Your task to perform on an android device: Show the shopping cart on costco.com. Add "asus zenbook" to the cart on costco.com, then select checkout. Image 0: 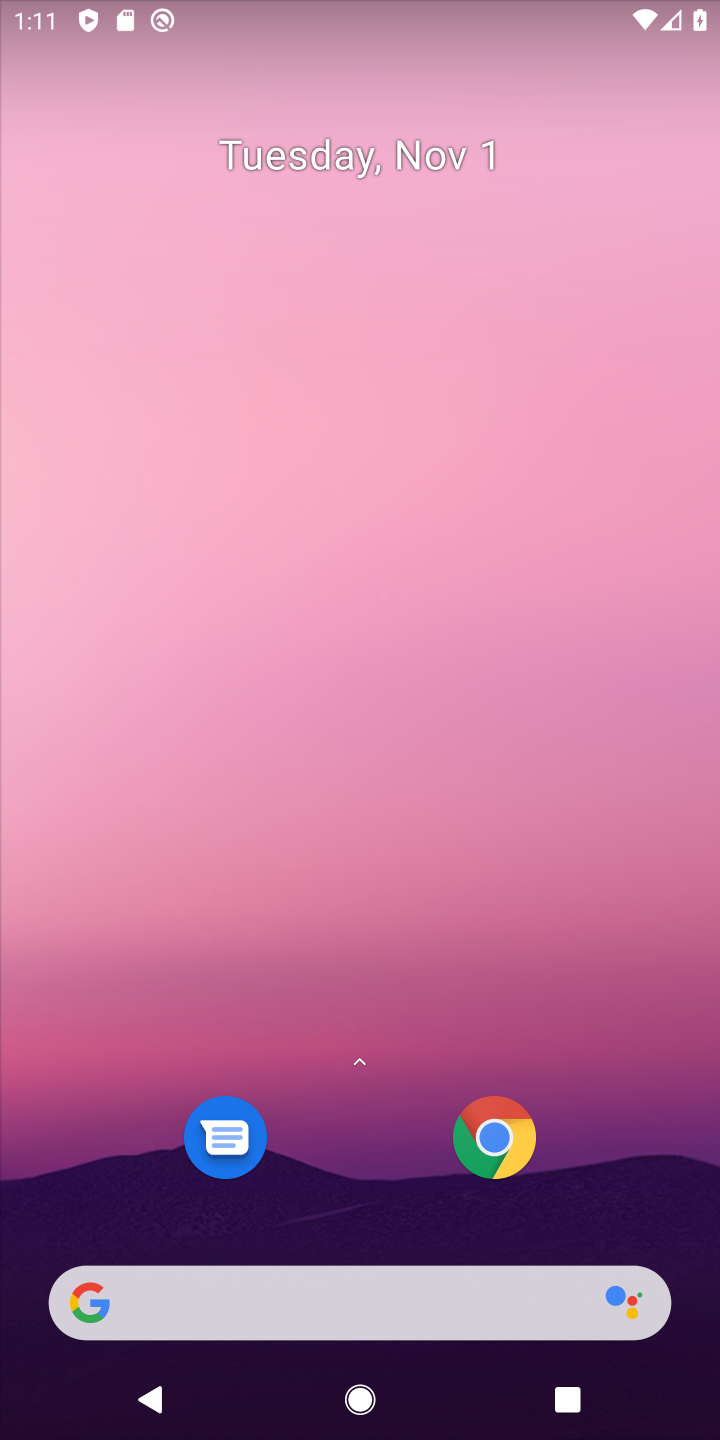
Step 0: click (367, 1296)
Your task to perform on an android device: Show the shopping cart on costco.com. Add "asus zenbook" to the cart on costco.com, then select checkout. Image 1: 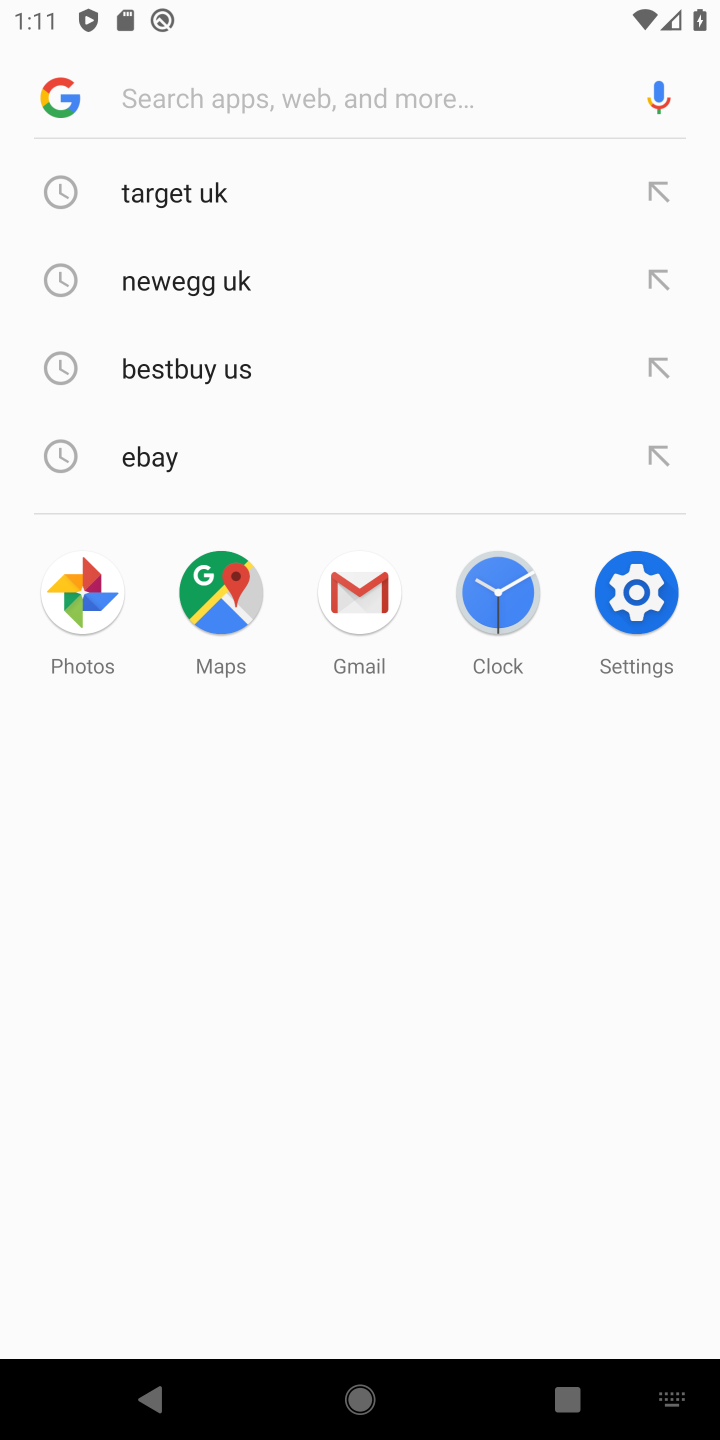
Step 1: type "costco"
Your task to perform on an android device: Show the shopping cart on costco.com. Add "asus zenbook" to the cart on costco.com, then select checkout. Image 2: 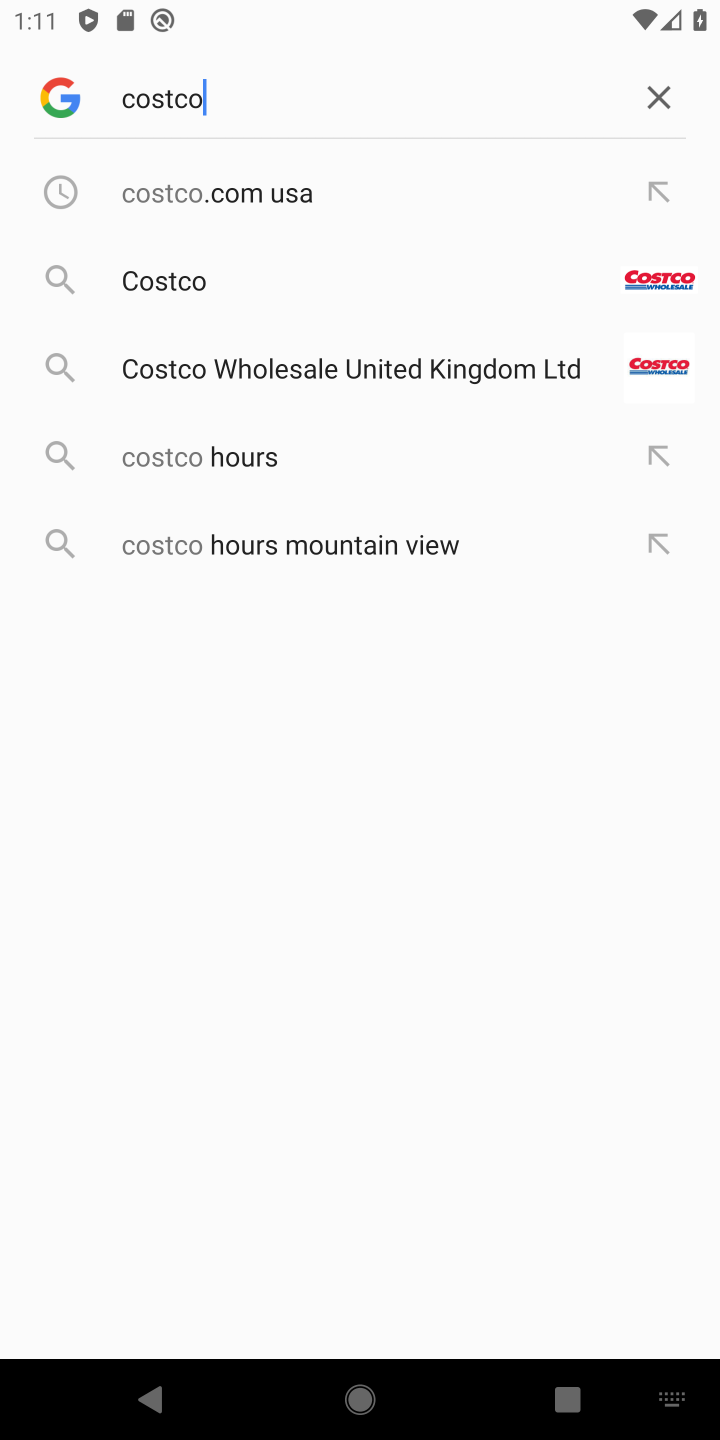
Step 2: click (385, 193)
Your task to perform on an android device: Show the shopping cart on costco.com. Add "asus zenbook" to the cart on costco.com, then select checkout. Image 3: 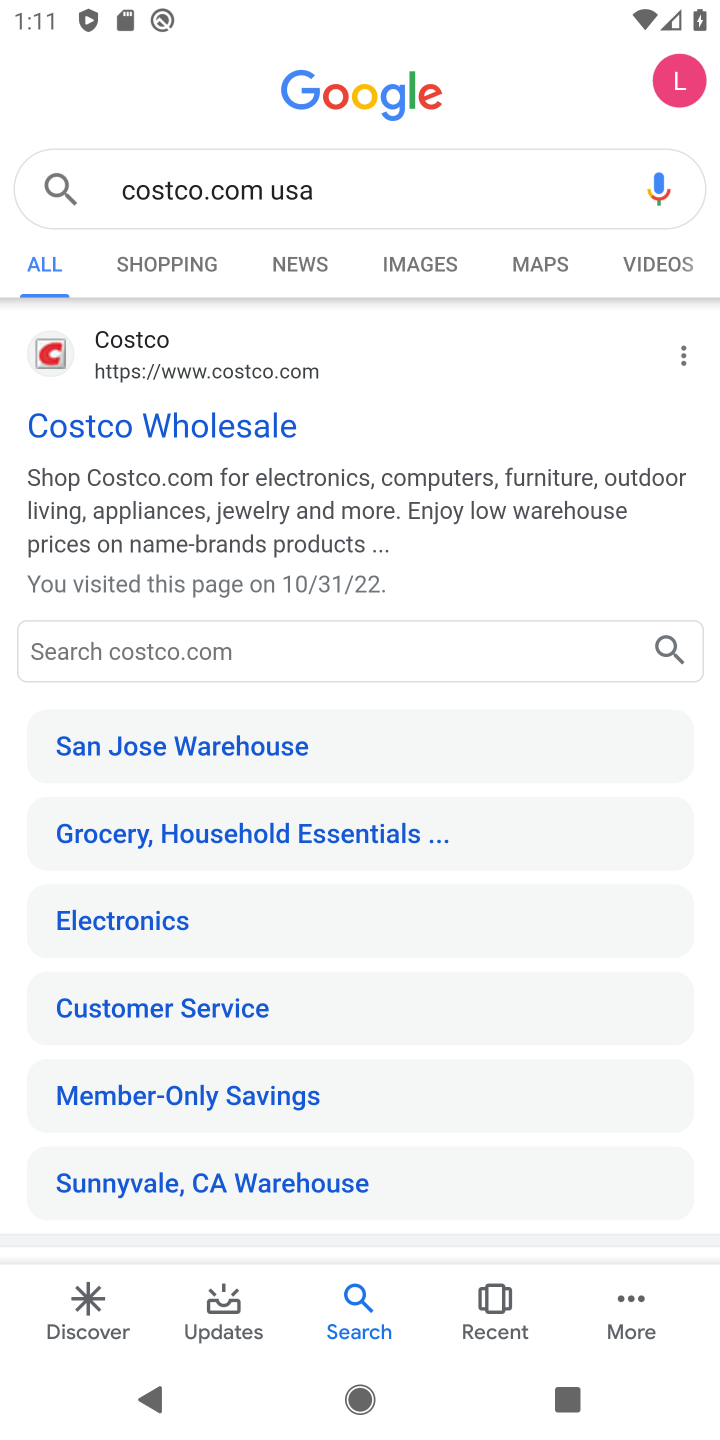
Step 3: click (152, 440)
Your task to perform on an android device: Show the shopping cart on costco.com. Add "asus zenbook" to the cart on costco.com, then select checkout. Image 4: 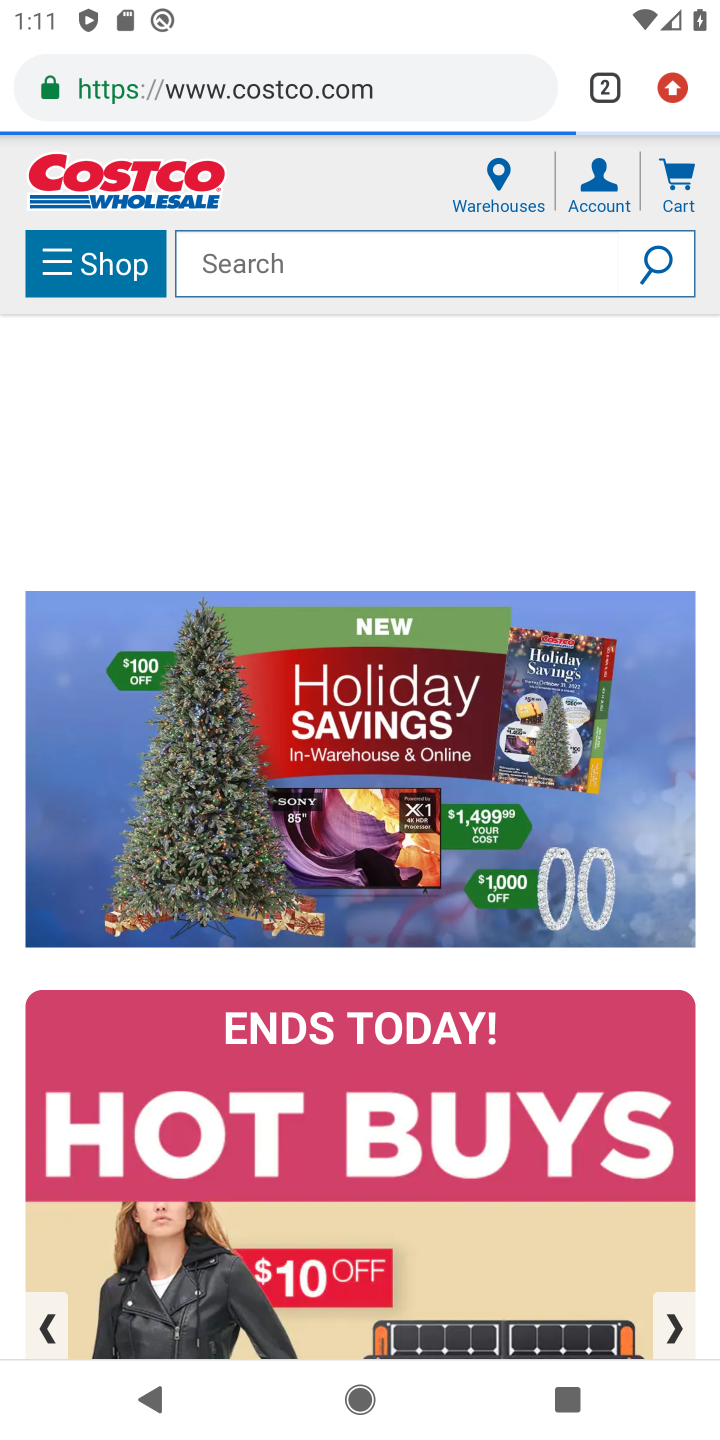
Step 4: click (437, 278)
Your task to perform on an android device: Show the shopping cart on costco.com. Add "asus zenbook" to the cart on costco.com, then select checkout. Image 5: 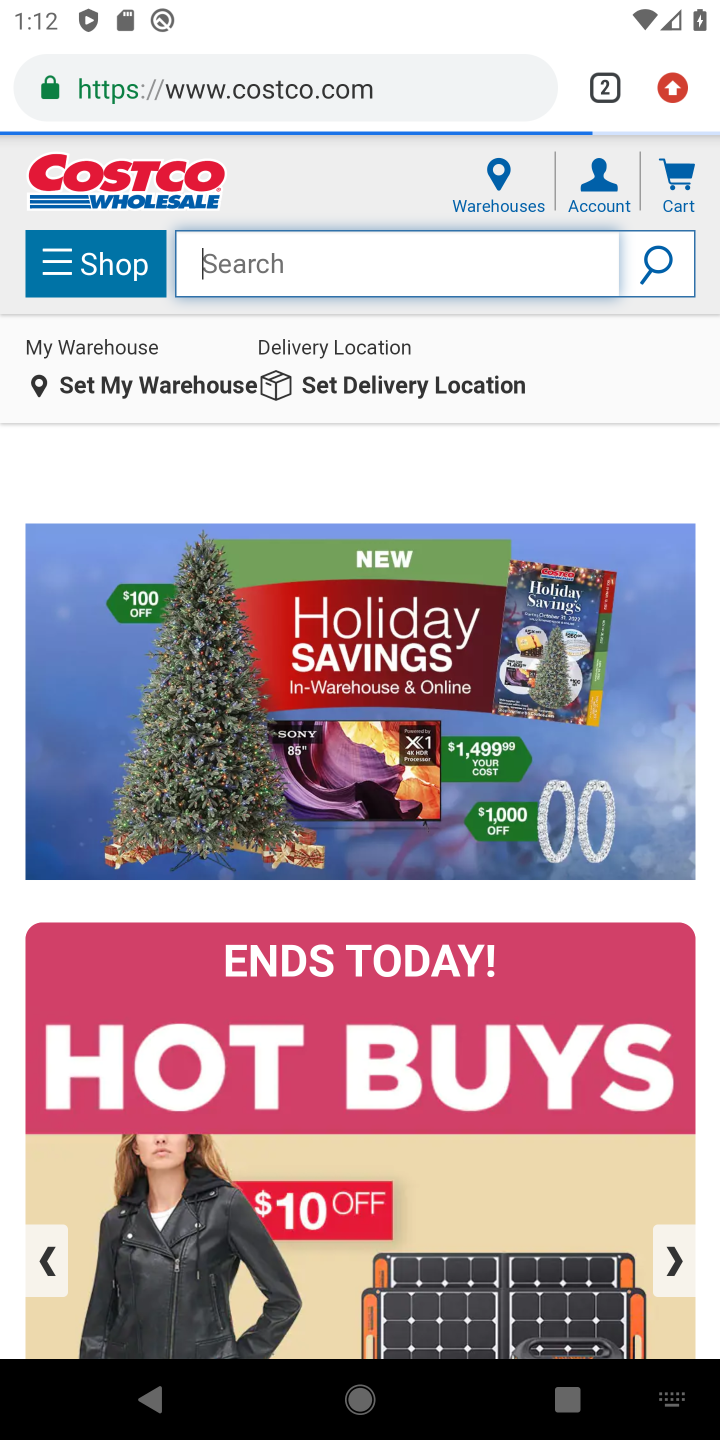
Step 5: type "aus zenbook"
Your task to perform on an android device: Show the shopping cart on costco.com. Add "asus zenbook" to the cart on costco.com, then select checkout. Image 6: 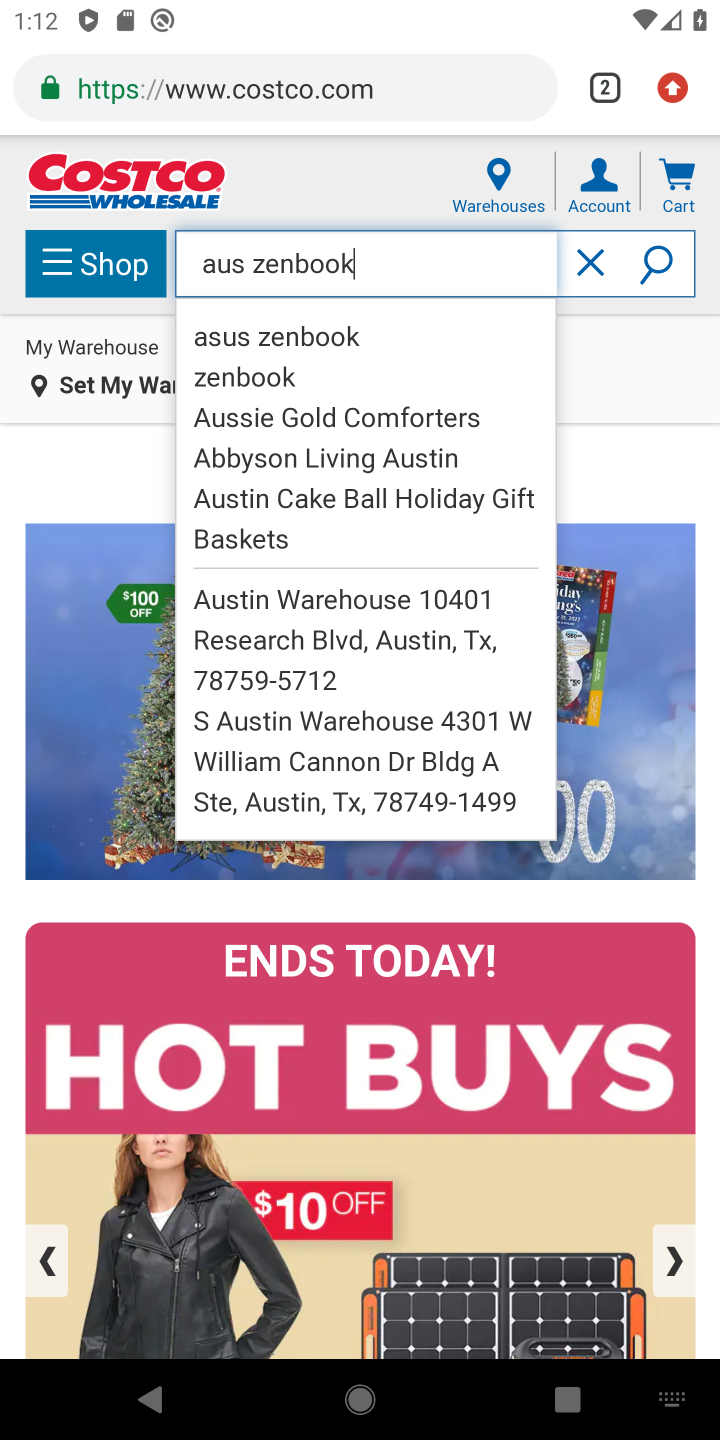
Step 6: click (332, 336)
Your task to perform on an android device: Show the shopping cart on costco.com. Add "asus zenbook" to the cart on costco.com, then select checkout. Image 7: 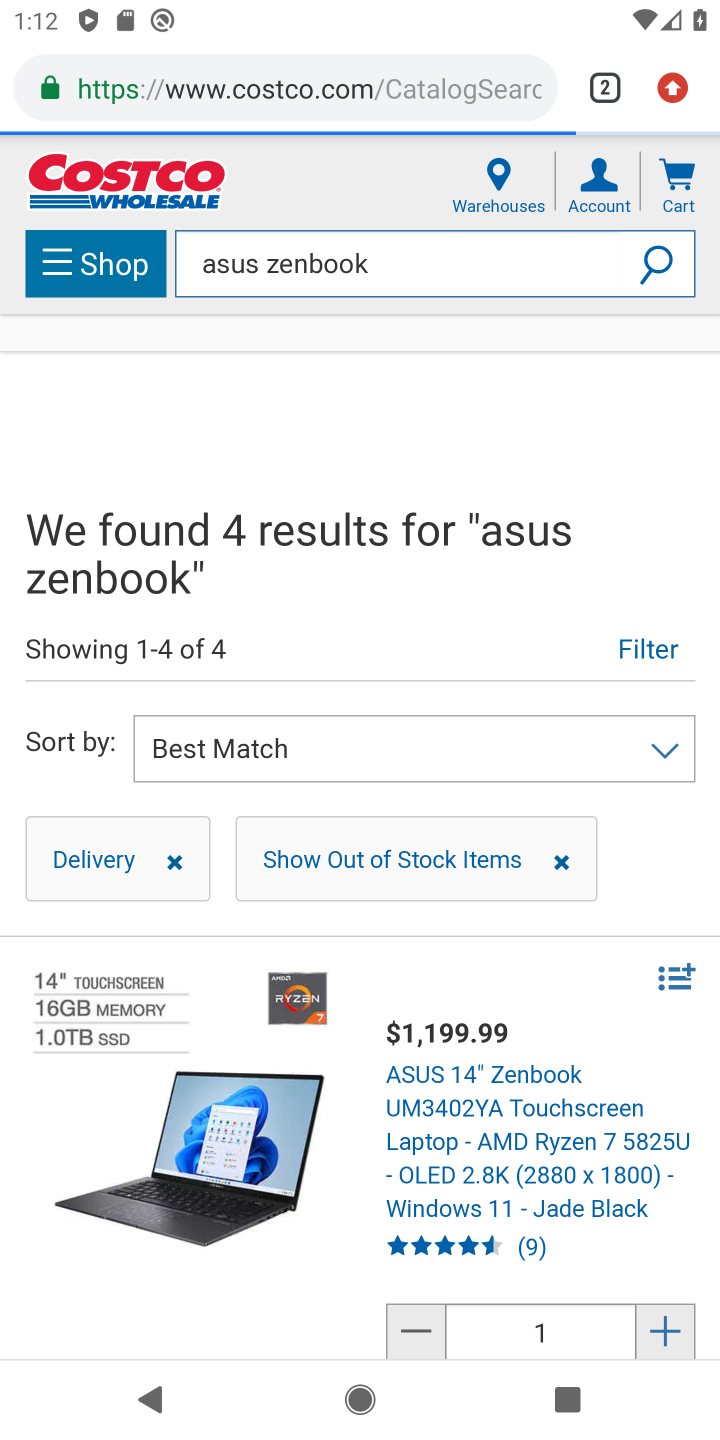
Step 7: click (409, 1047)
Your task to perform on an android device: Show the shopping cart on costco.com. Add "asus zenbook" to the cart on costco.com, then select checkout. Image 8: 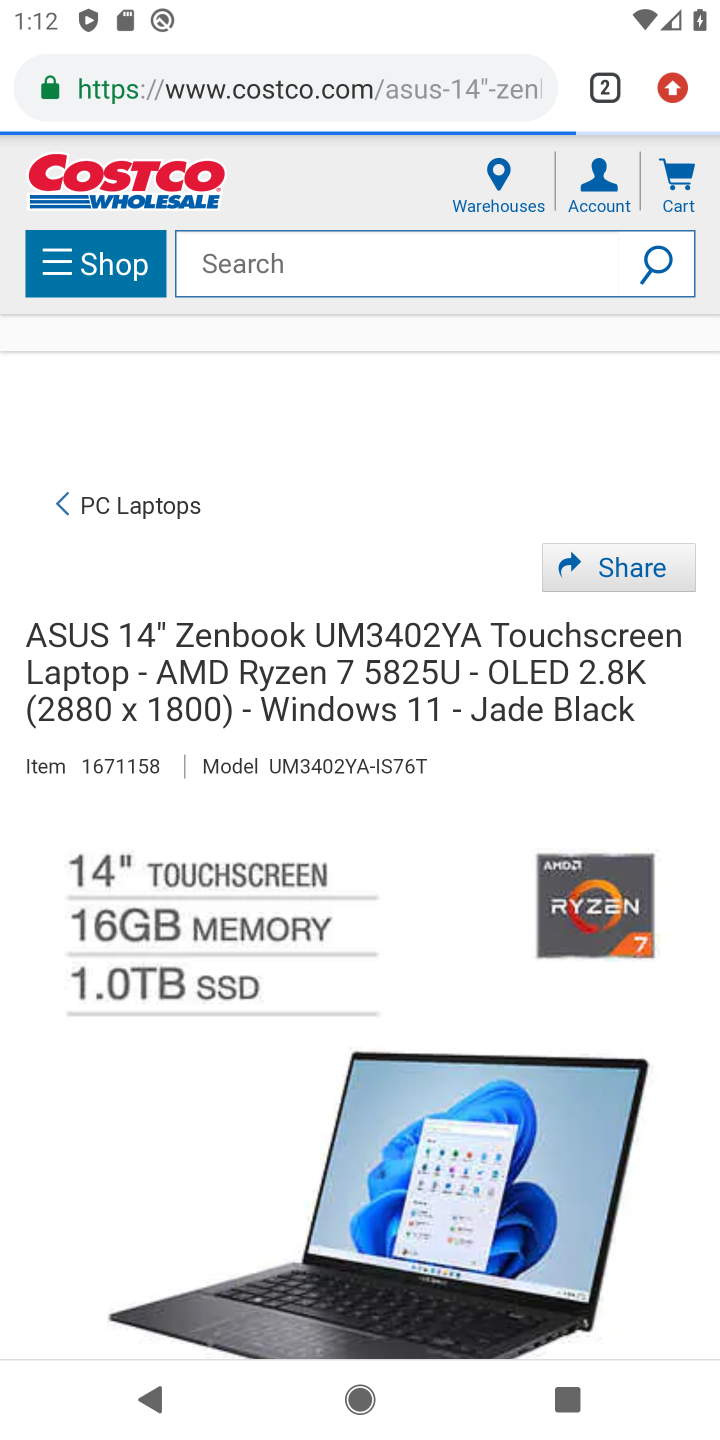
Step 8: task complete